Your task to perform on an android device: add a label to a message in the gmail app Image 0: 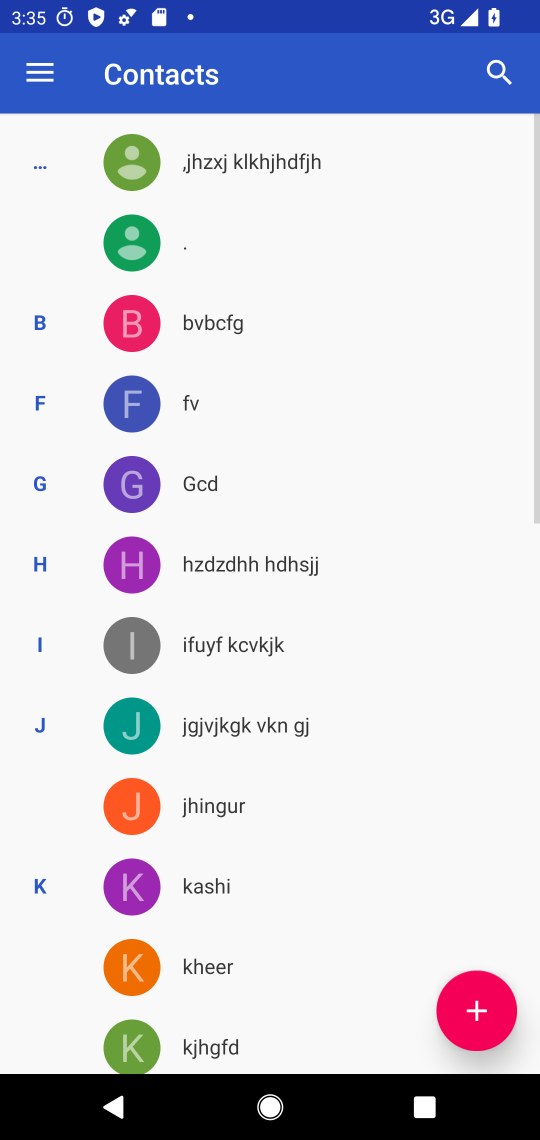
Step 0: press home button
Your task to perform on an android device: add a label to a message in the gmail app Image 1: 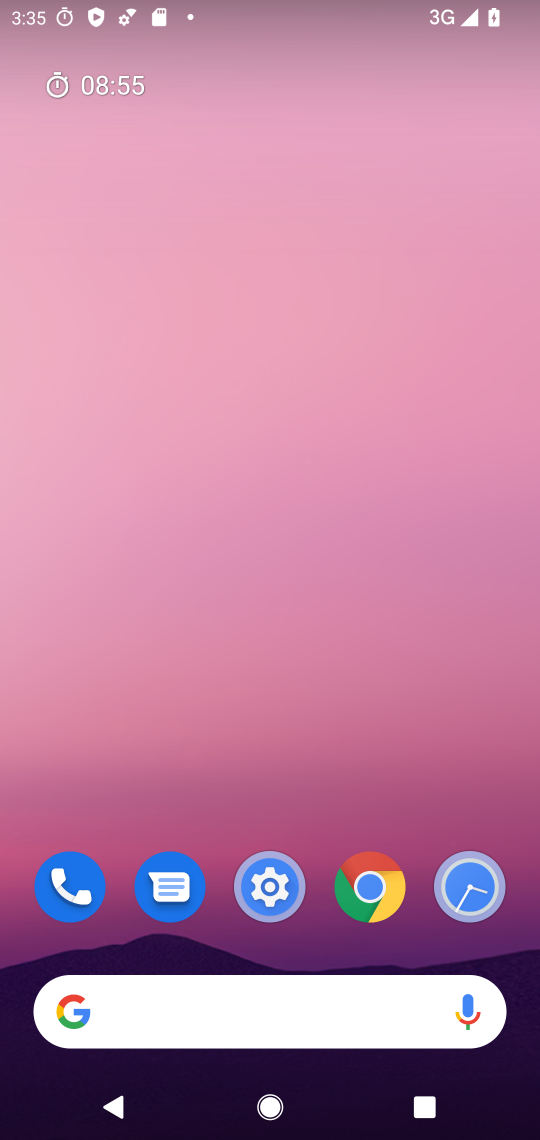
Step 1: drag from (306, 775) to (370, 121)
Your task to perform on an android device: add a label to a message in the gmail app Image 2: 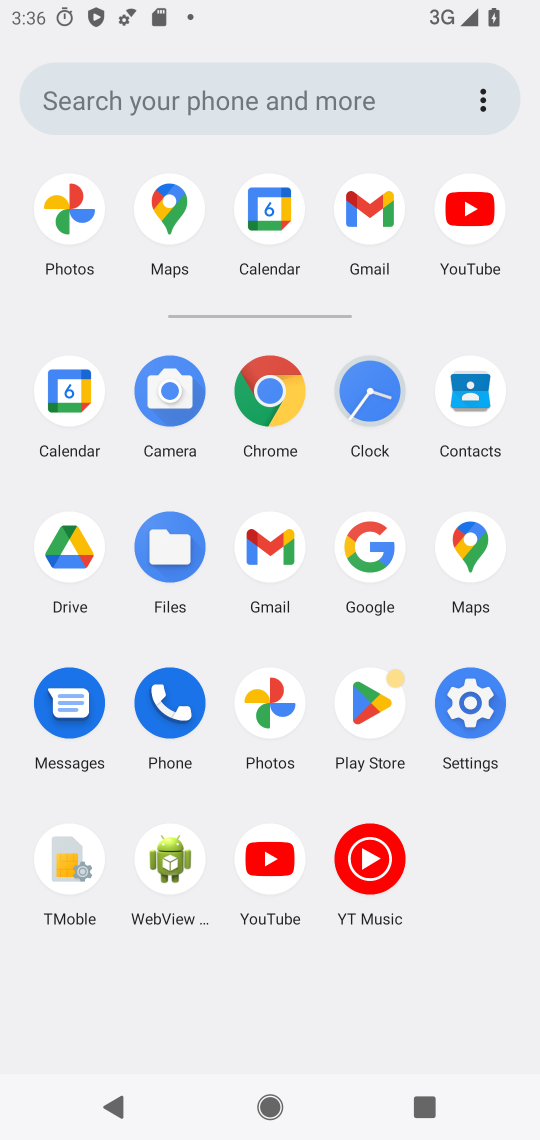
Step 2: click (260, 550)
Your task to perform on an android device: add a label to a message in the gmail app Image 3: 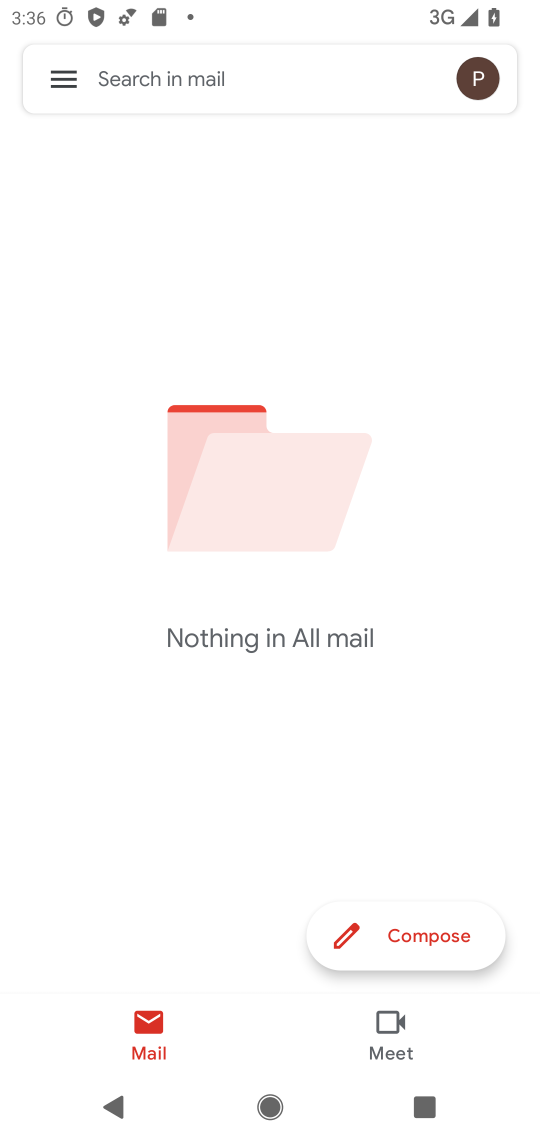
Step 3: task complete